Your task to perform on an android device: install app "Duolingo: language lessons" Image 0: 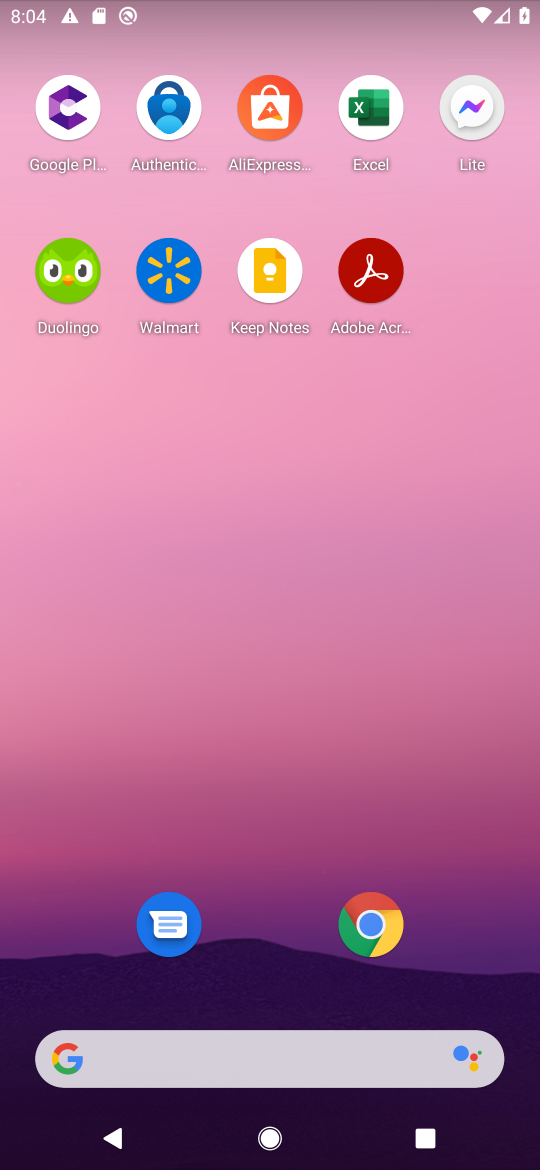
Step 0: click (68, 296)
Your task to perform on an android device: install app "Duolingo: language lessons" Image 1: 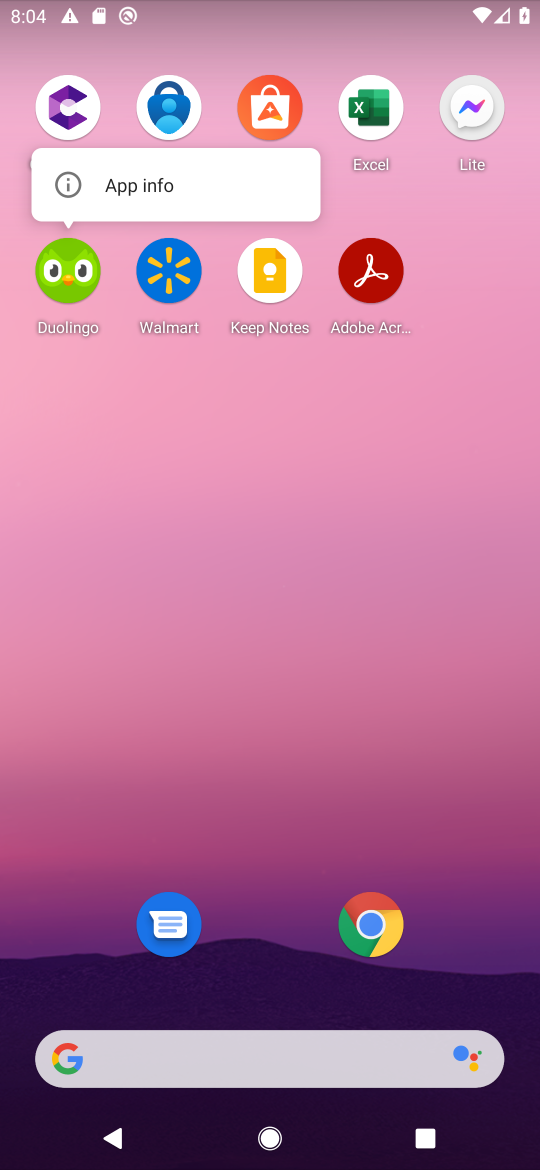
Step 1: click (123, 182)
Your task to perform on an android device: install app "Duolingo: language lessons" Image 2: 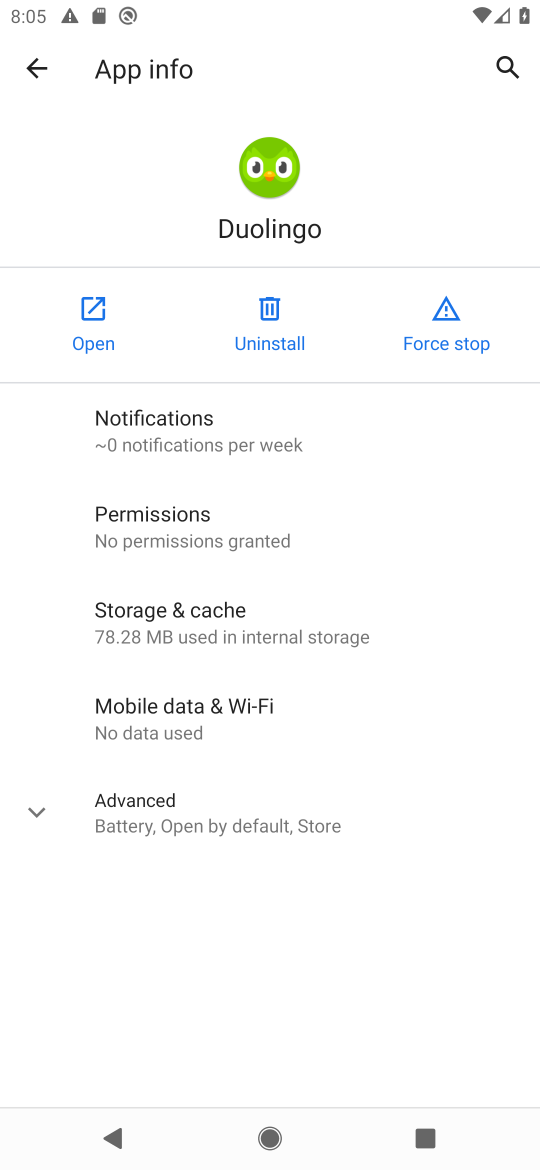
Step 2: task complete